Your task to perform on an android device: turn off notifications settings in the gmail app Image 0: 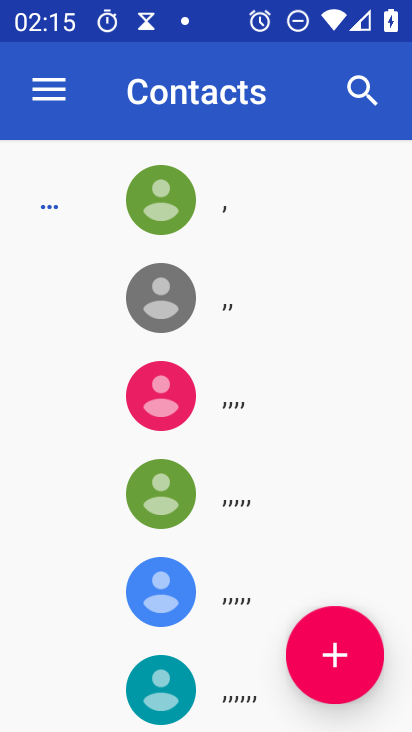
Step 0: press home button
Your task to perform on an android device: turn off notifications settings in the gmail app Image 1: 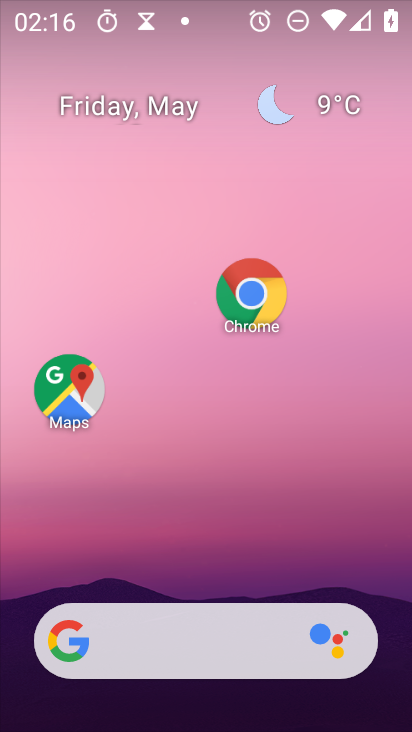
Step 1: drag from (201, 639) to (289, 142)
Your task to perform on an android device: turn off notifications settings in the gmail app Image 2: 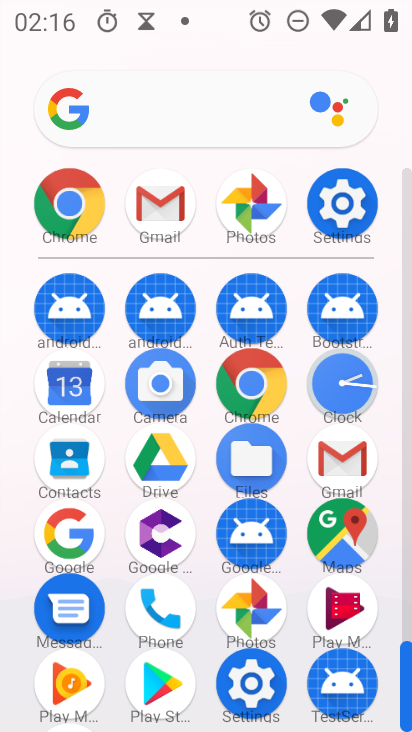
Step 2: click (176, 221)
Your task to perform on an android device: turn off notifications settings in the gmail app Image 3: 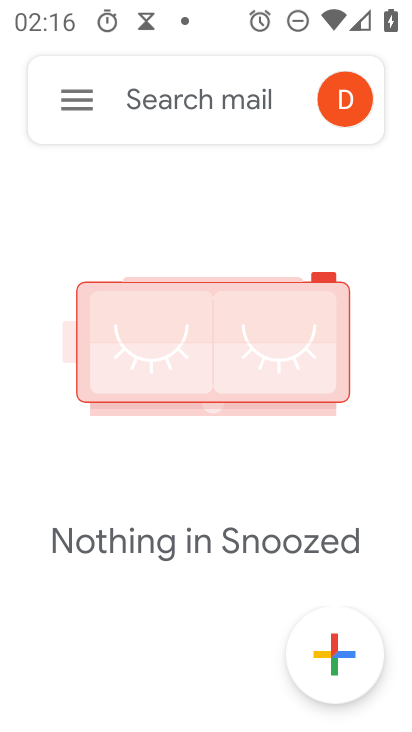
Step 3: click (77, 104)
Your task to perform on an android device: turn off notifications settings in the gmail app Image 4: 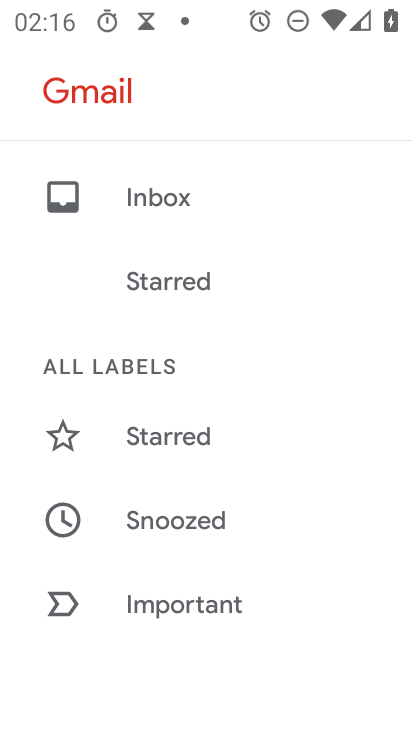
Step 4: drag from (265, 687) to (296, 194)
Your task to perform on an android device: turn off notifications settings in the gmail app Image 5: 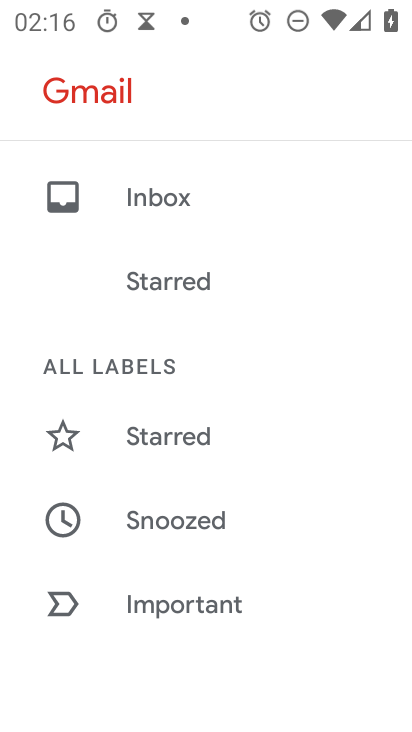
Step 5: drag from (282, 555) to (346, 99)
Your task to perform on an android device: turn off notifications settings in the gmail app Image 6: 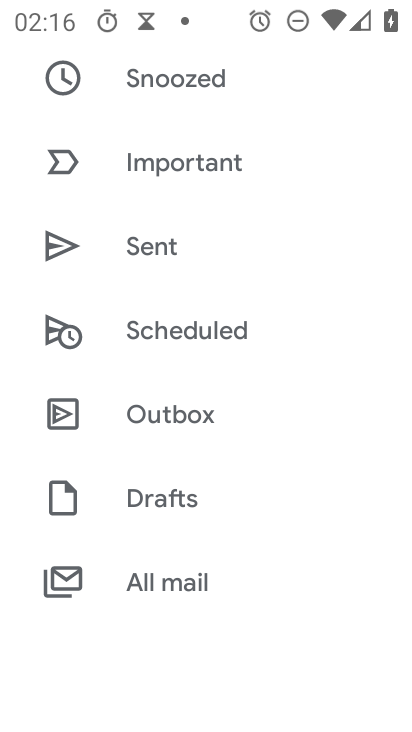
Step 6: drag from (278, 629) to (333, 94)
Your task to perform on an android device: turn off notifications settings in the gmail app Image 7: 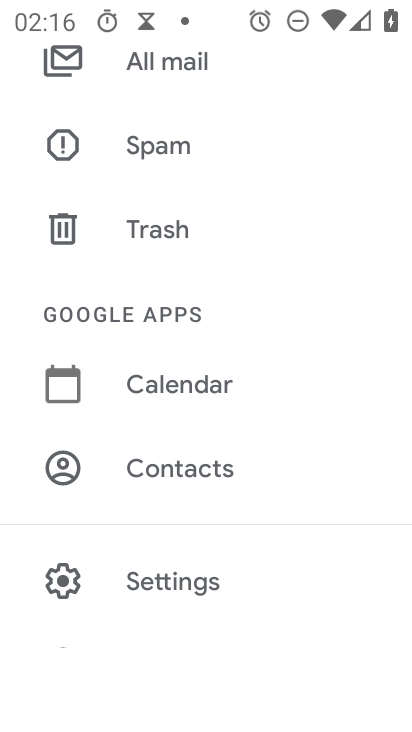
Step 7: click (156, 585)
Your task to perform on an android device: turn off notifications settings in the gmail app Image 8: 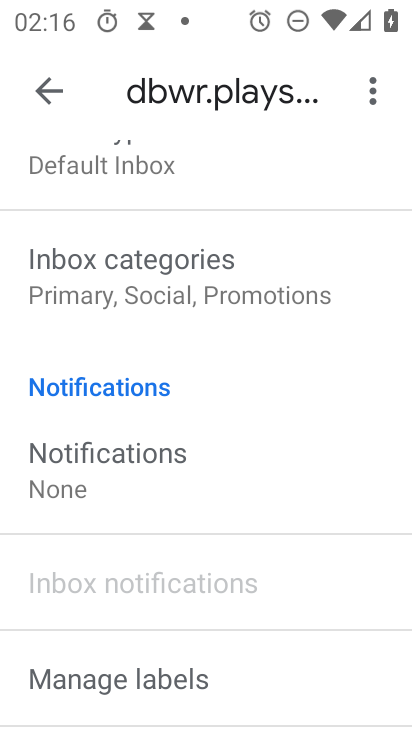
Step 8: click (85, 460)
Your task to perform on an android device: turn off notifications settings in the gmail app Image 9: 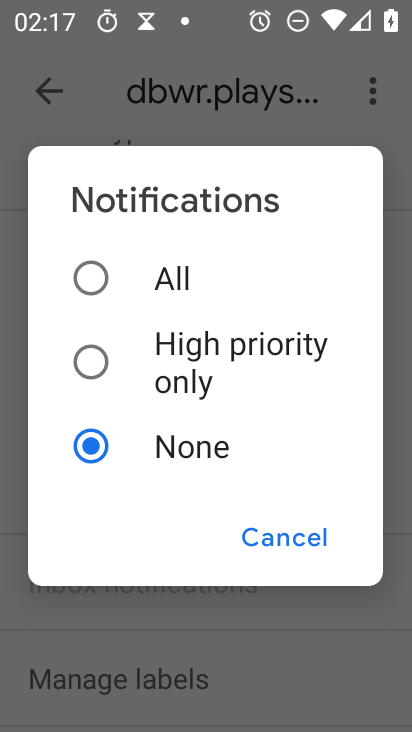
Step 9: task complete